Your task to perform on an android device: show emergency info Image 0: 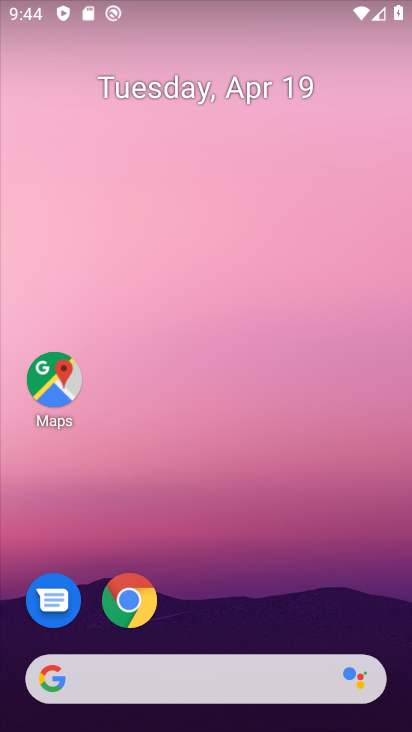
Step 0: drag from (279, 486) to (357, 105)
Your task to perform on an android device: show emergency info Image 1: 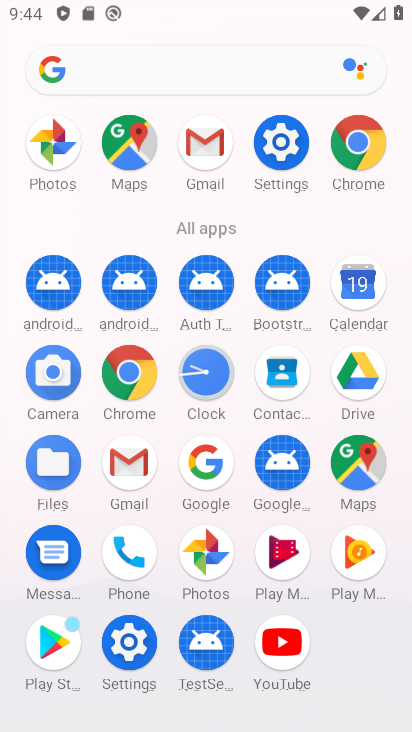
Step 1: drag from (189, 617) to (255, 344)
Your task to perform on an android device: show emergency info Image 2: 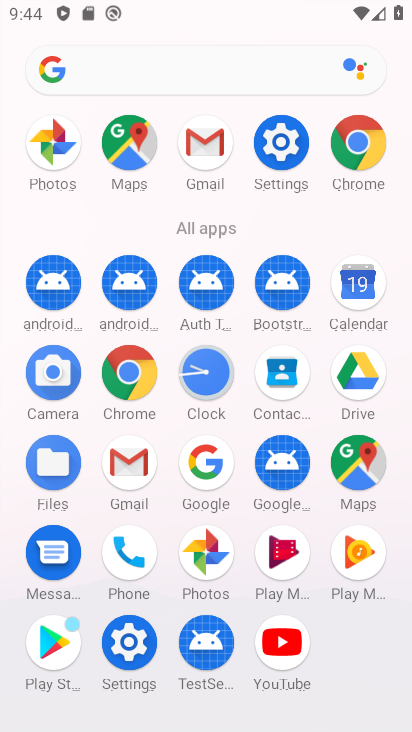
Step 2: click (130, 645)
Your task to perform on an android device: show emergency info Image 3: 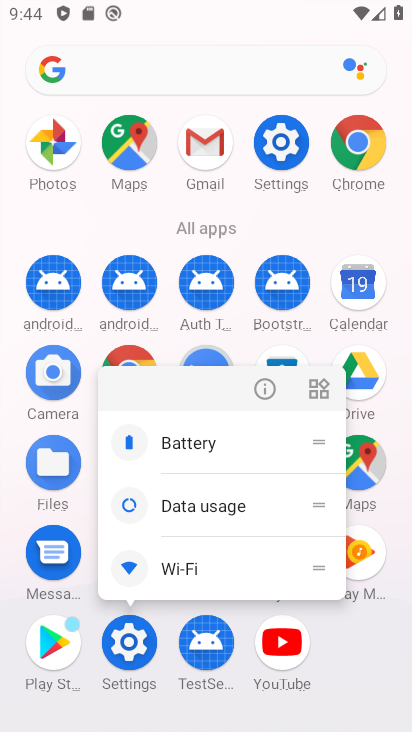
Step 3: click (125, 647)
Your task to perform on an android device: show emergency info Image 4: 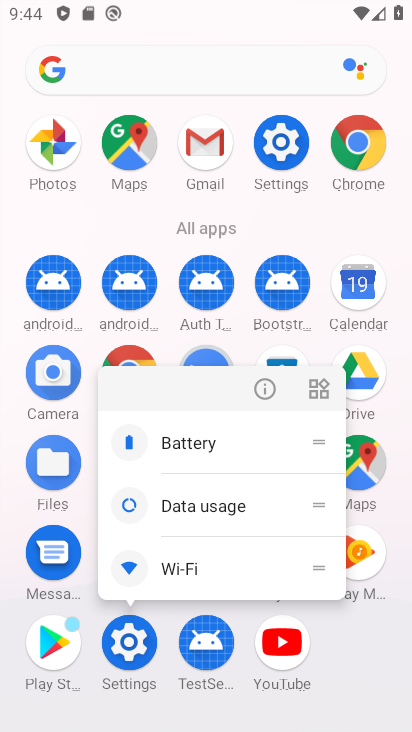
Step 4: click (116, 657)
Your task to perform on an android device: show emergency info Image 5: 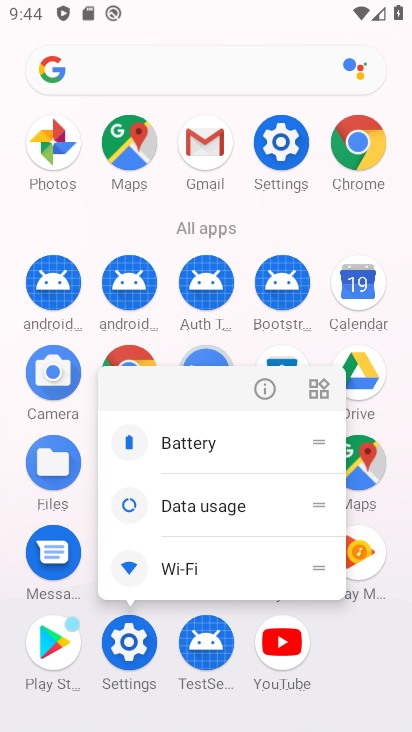
Step 5: click (121, 659)
Your task to perform on an android device: show emergency info Image 6: 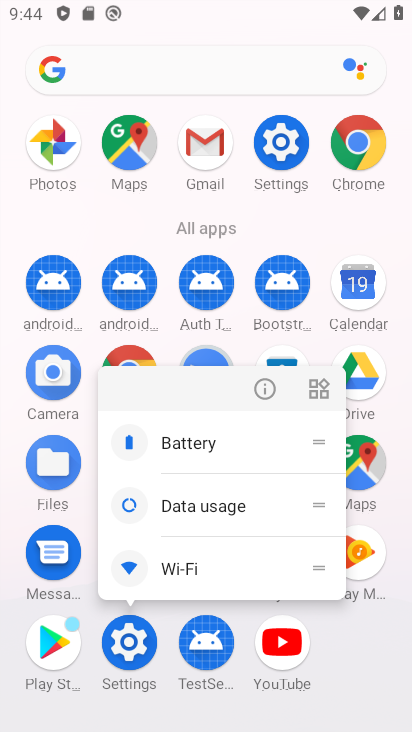
Step 6: click (134, 636)
Your task to perform on an android device: show emergency info Image 7: 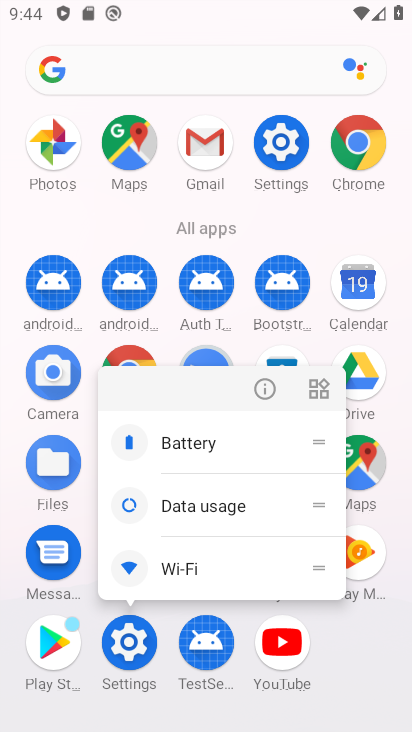
Step 7: click (117, 641)
Your task to perform on an android device: show emergency info Image 8: 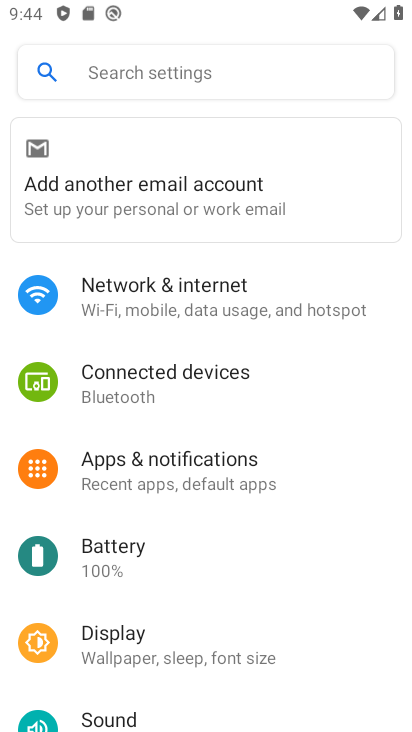
Step 8: drag from (208, 572) to (292, 258)
Your task to perform on an android device: show emergency info Image 9: 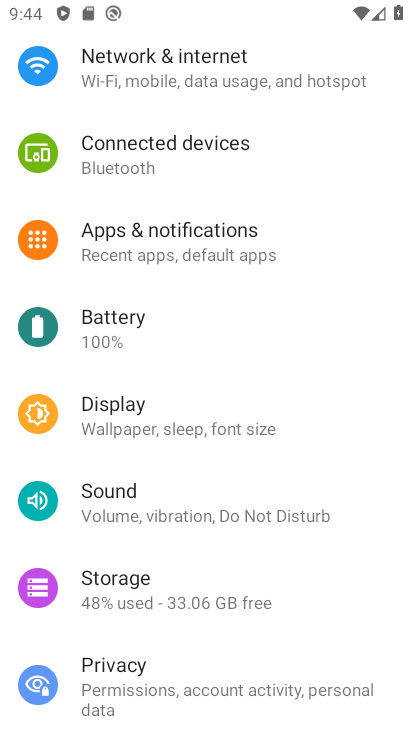
Step 9: drag from (237, 469) to (308, 196)
Your task to perform on an android device: show emergency info Image 10: 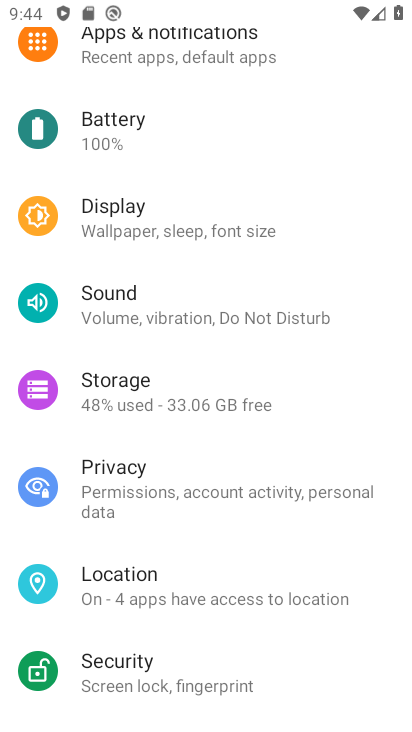
Step 10: drag from (201, 559) to (328, 131)
Your task to perform on an android device: show emergency info Image 11: 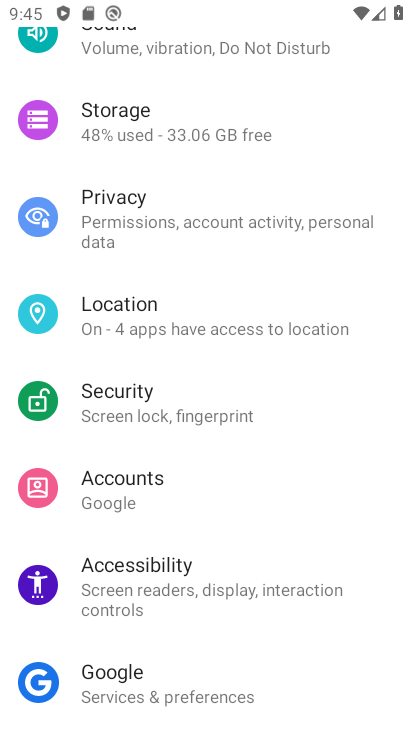
Step 11: drag from (209, 586) to (350, 125)
Your task to perform on an android device: show emergency info Image 12: 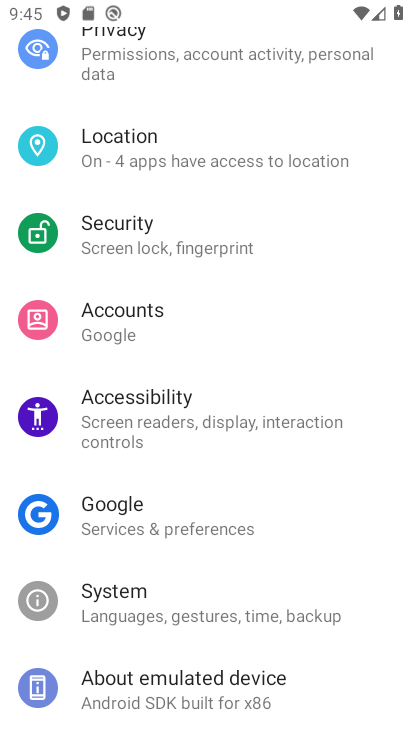
Step 12: click (223, 677)
Your task to perform on an android device: show emergency info Image 13: 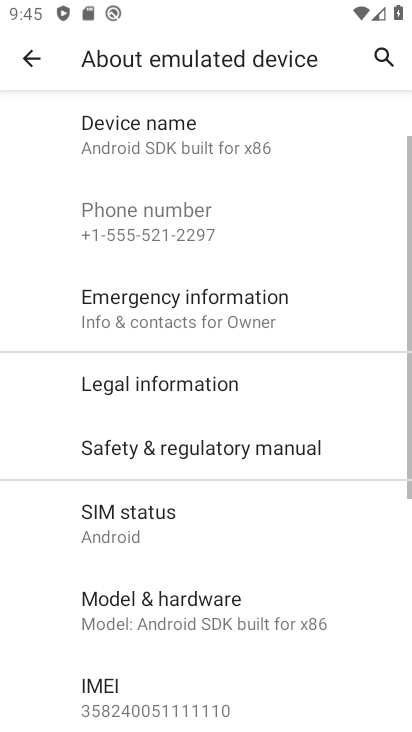
Step 13: click (228, 311)
Your task to perform on an android device: show emergency info Image 14: 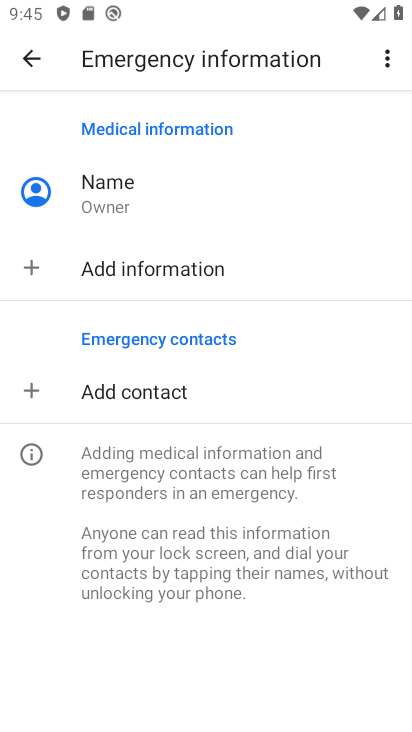
Step 14: task complete